Your task to perform on an android device: delete location history Image 0: 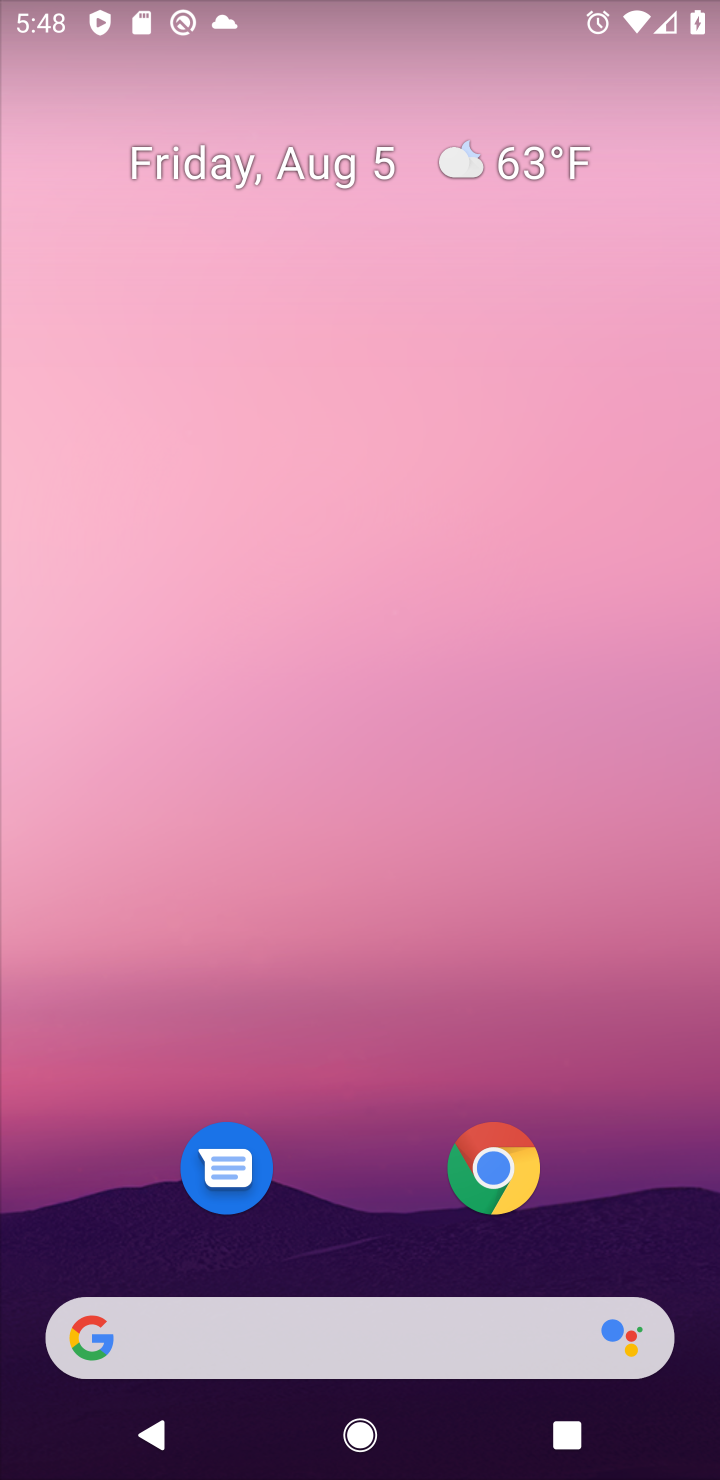
Step 0: press home button
Your task to perform on an android device: delete location history Image 1: 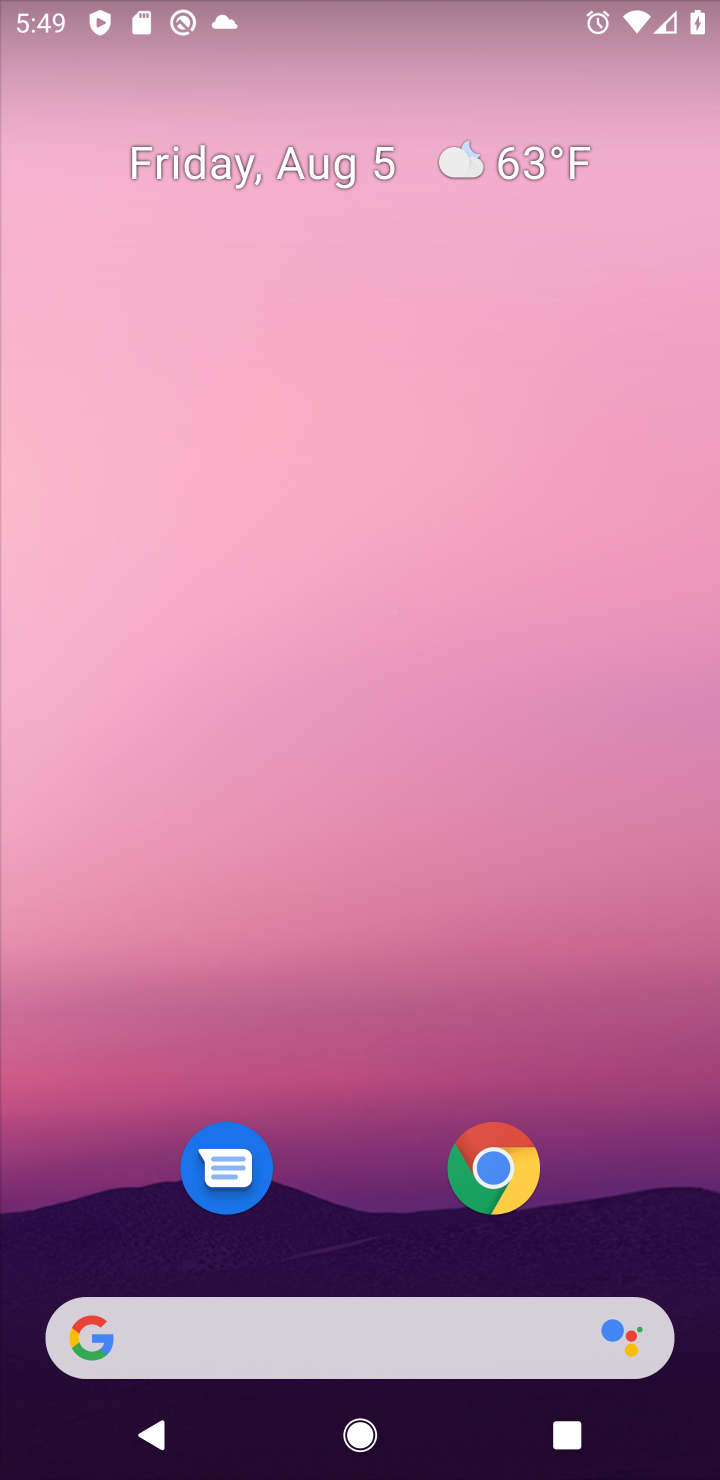
Step 1: drag from (348, 1258) to (403, 87)
Your task to perform on an android device: delete location history Image 2: 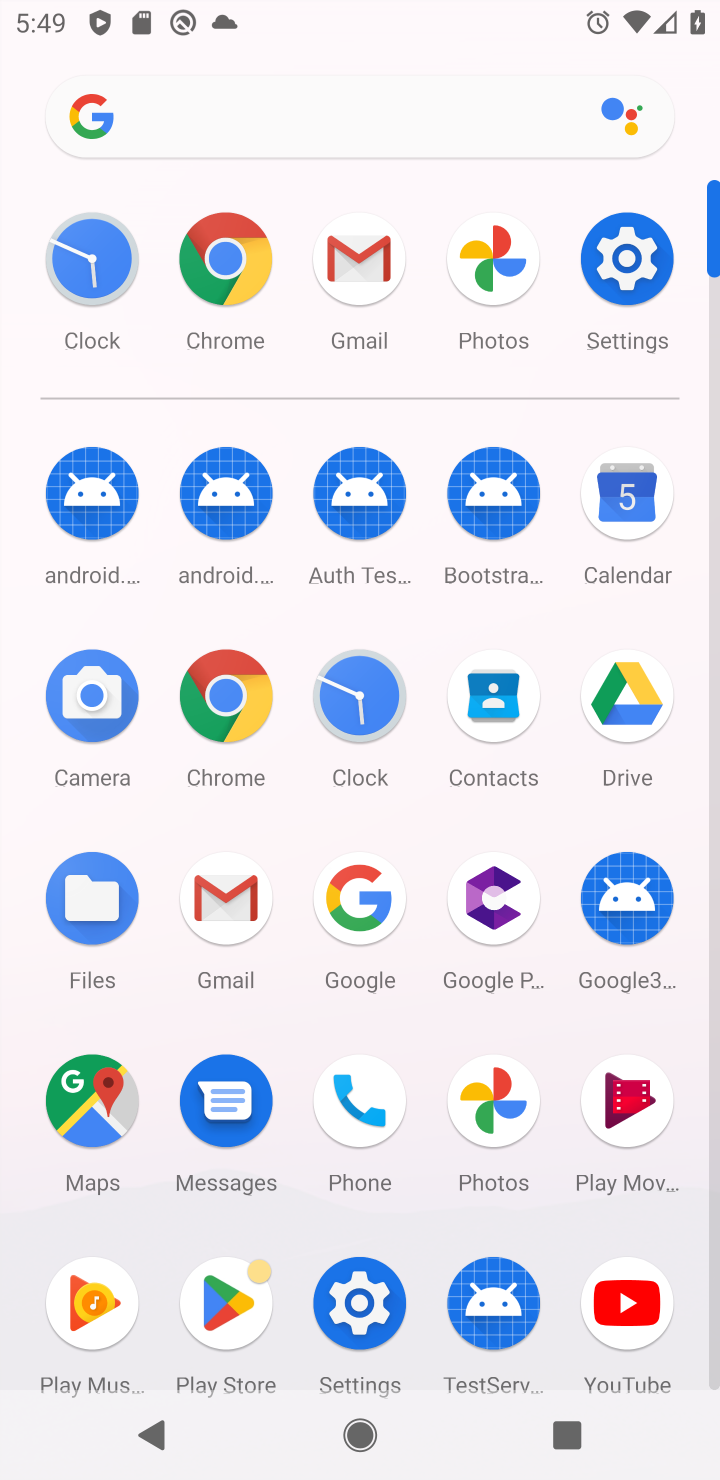
Step 2: click (601, 274)
Your task to perform on an android device: delete location history Image 3: 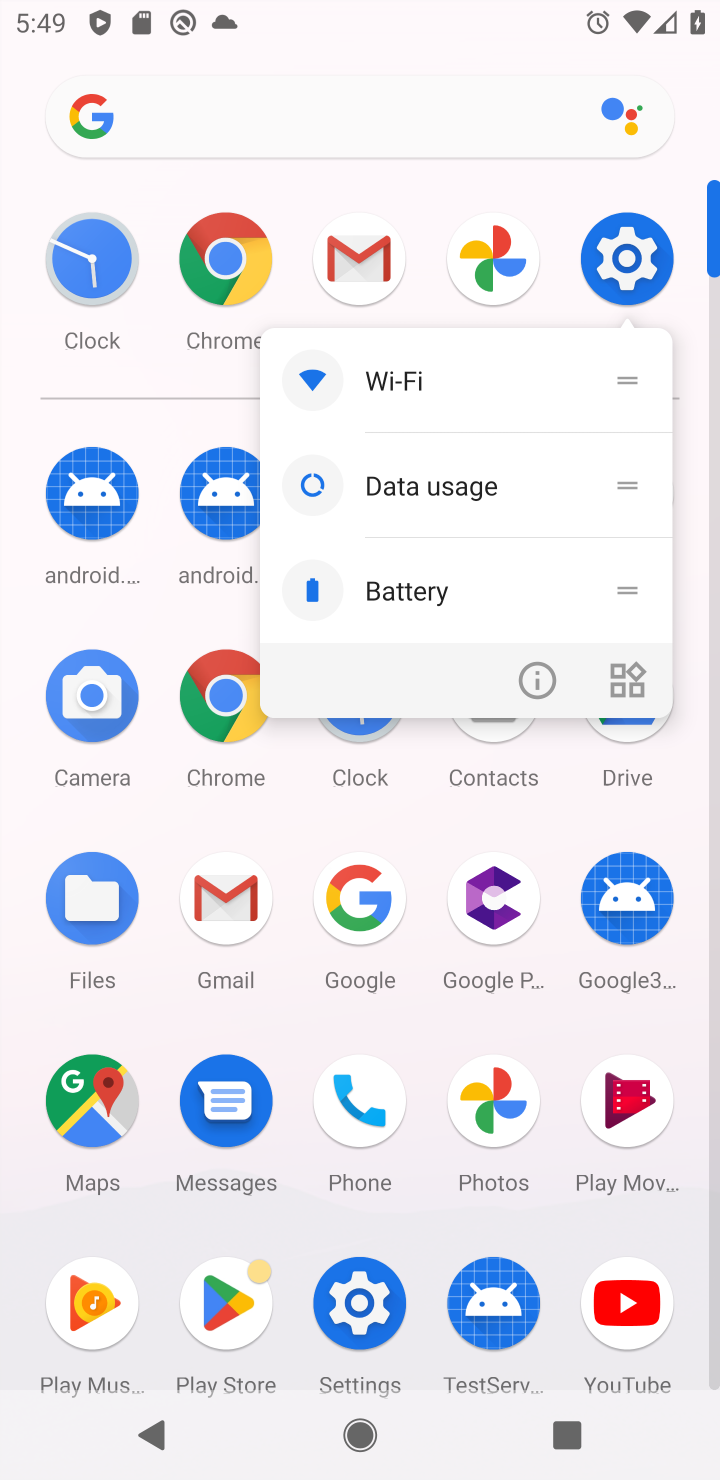
Step 3: click (89, 1111)
Your task to perform on an android device: delete location history Image 4: 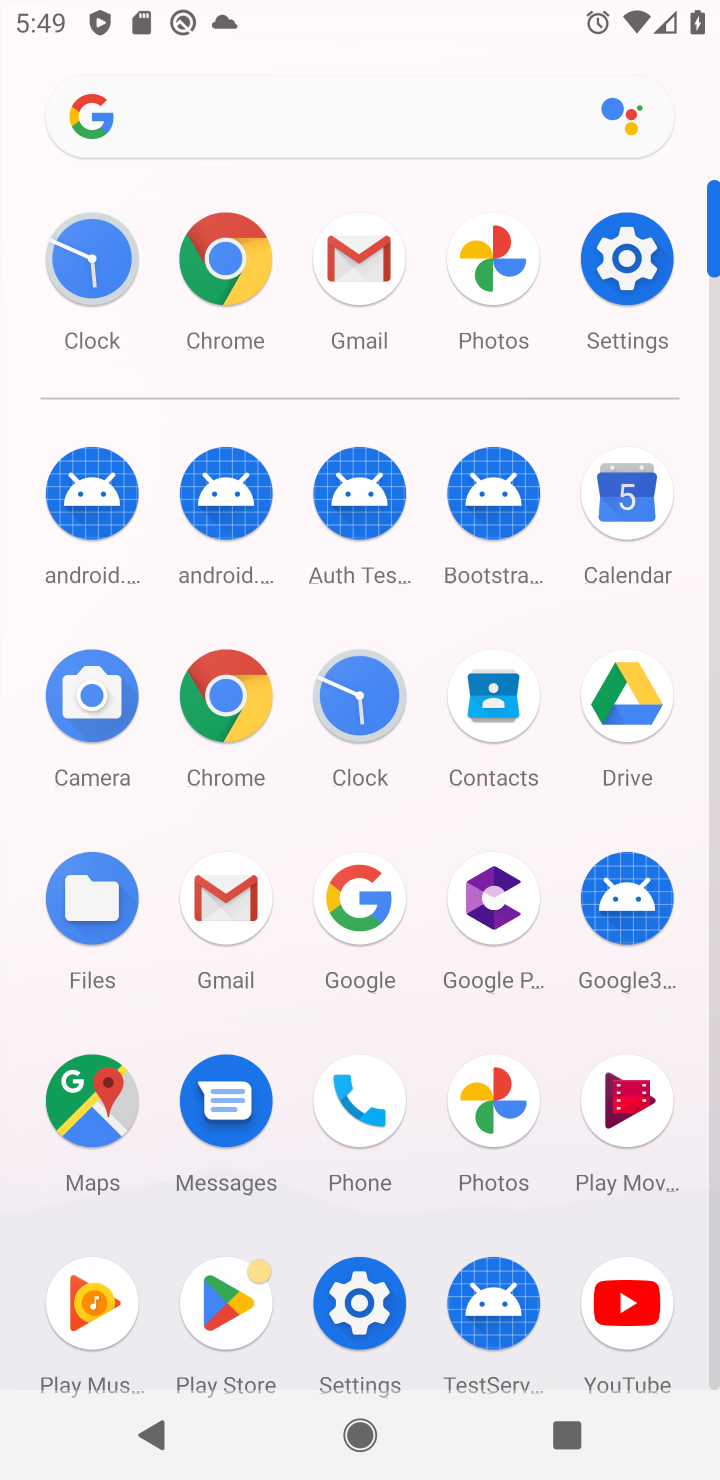
Step 4: click (25, 1162)
Your task to perform on an android device: delete location history Image 5: 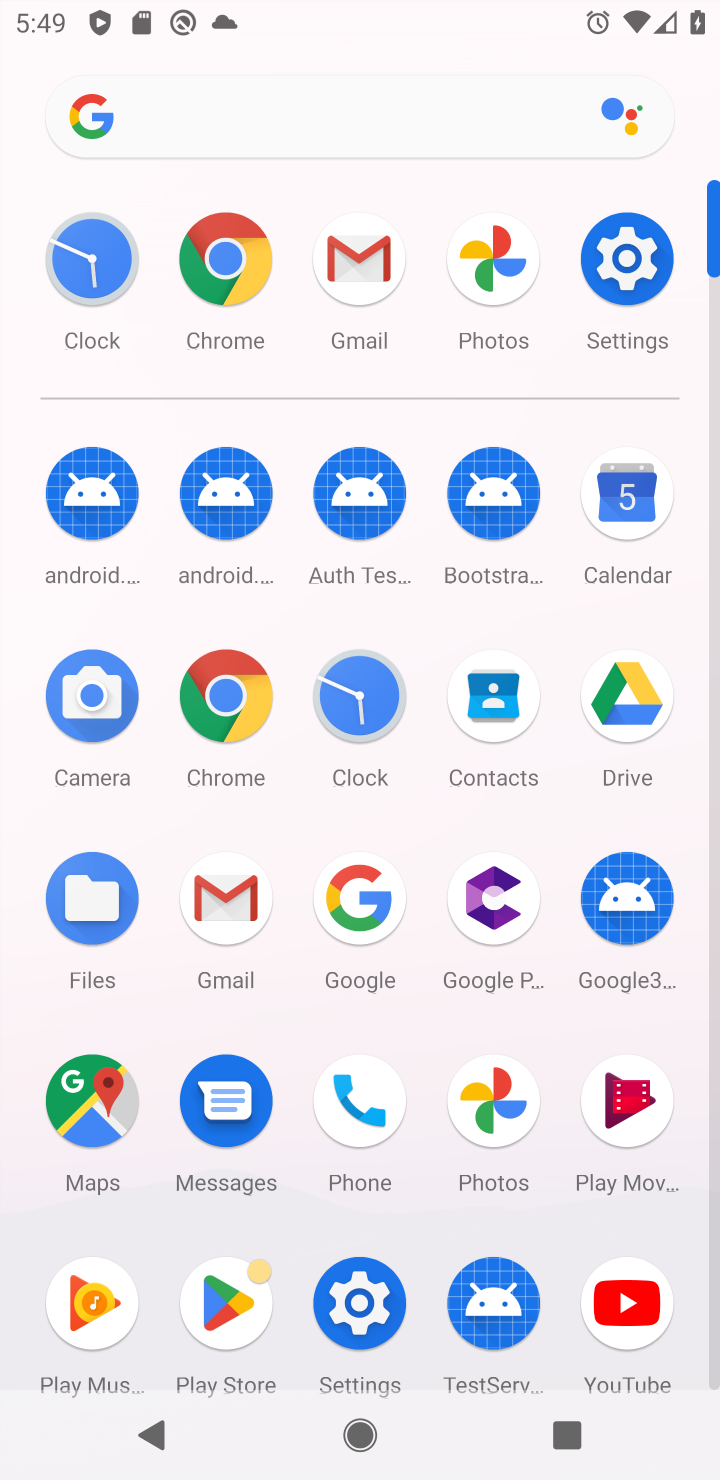
Step 5: click (98, 1129)
Your task to perform on an android device: delete location history Image 6: 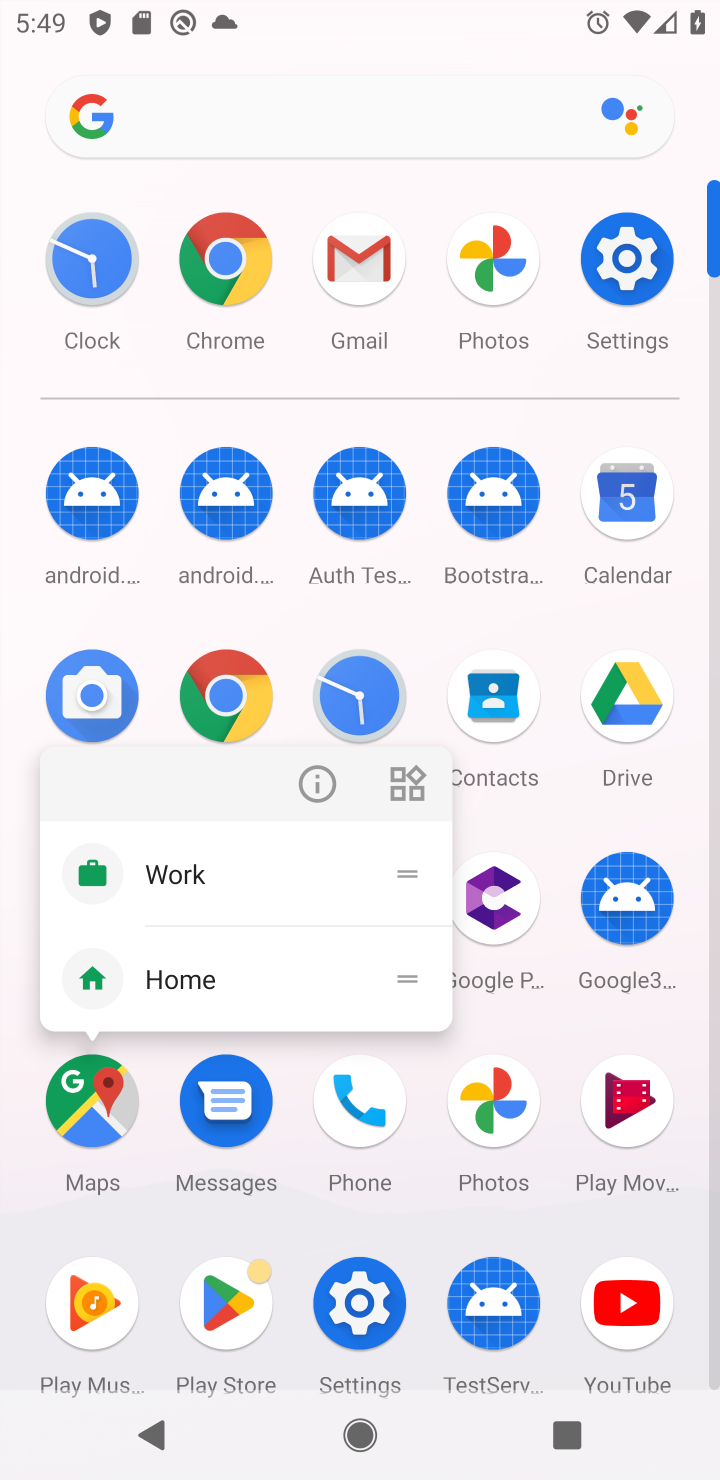
Step 6: click (62, 1127)
Your task to perform on an android device: delete location history Image 7: 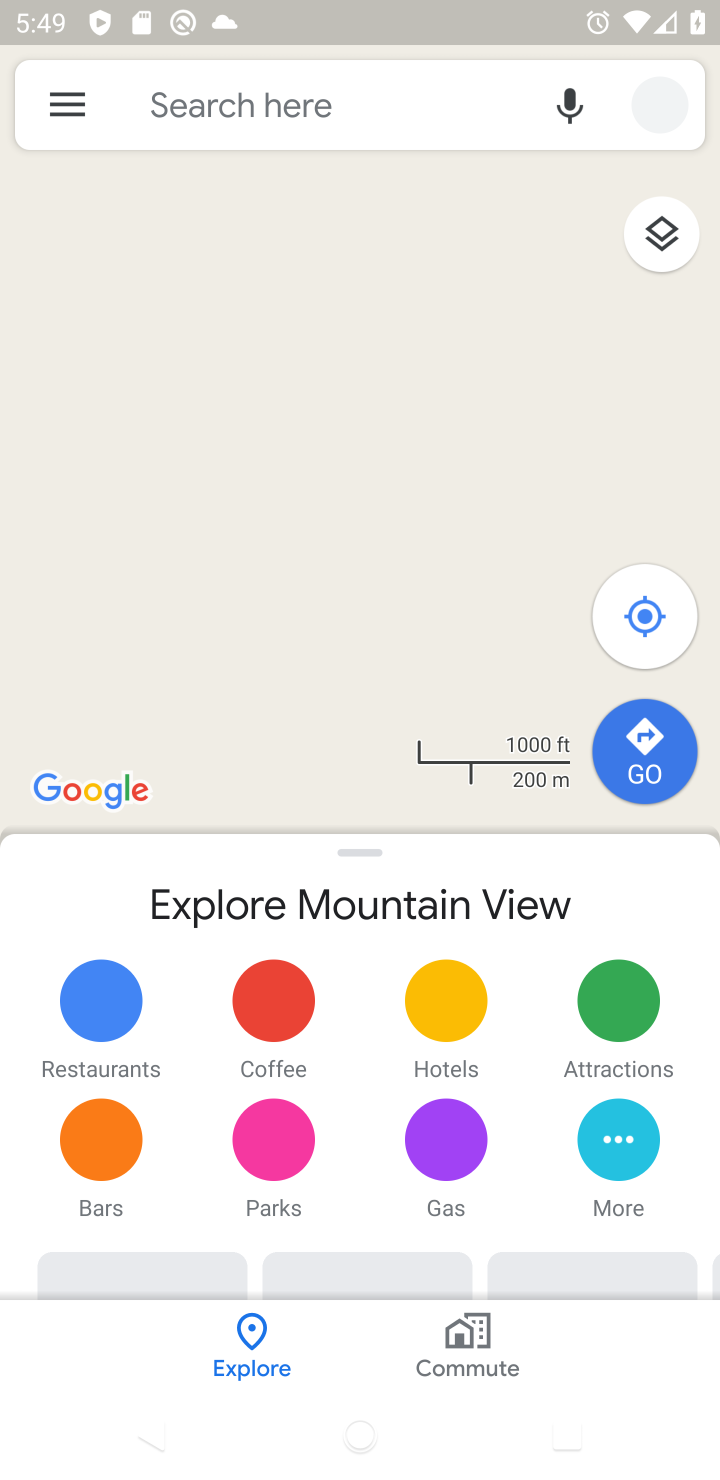
Step 7: click (52, 97)
Your task to perform on an android device: delete location history Image 8: 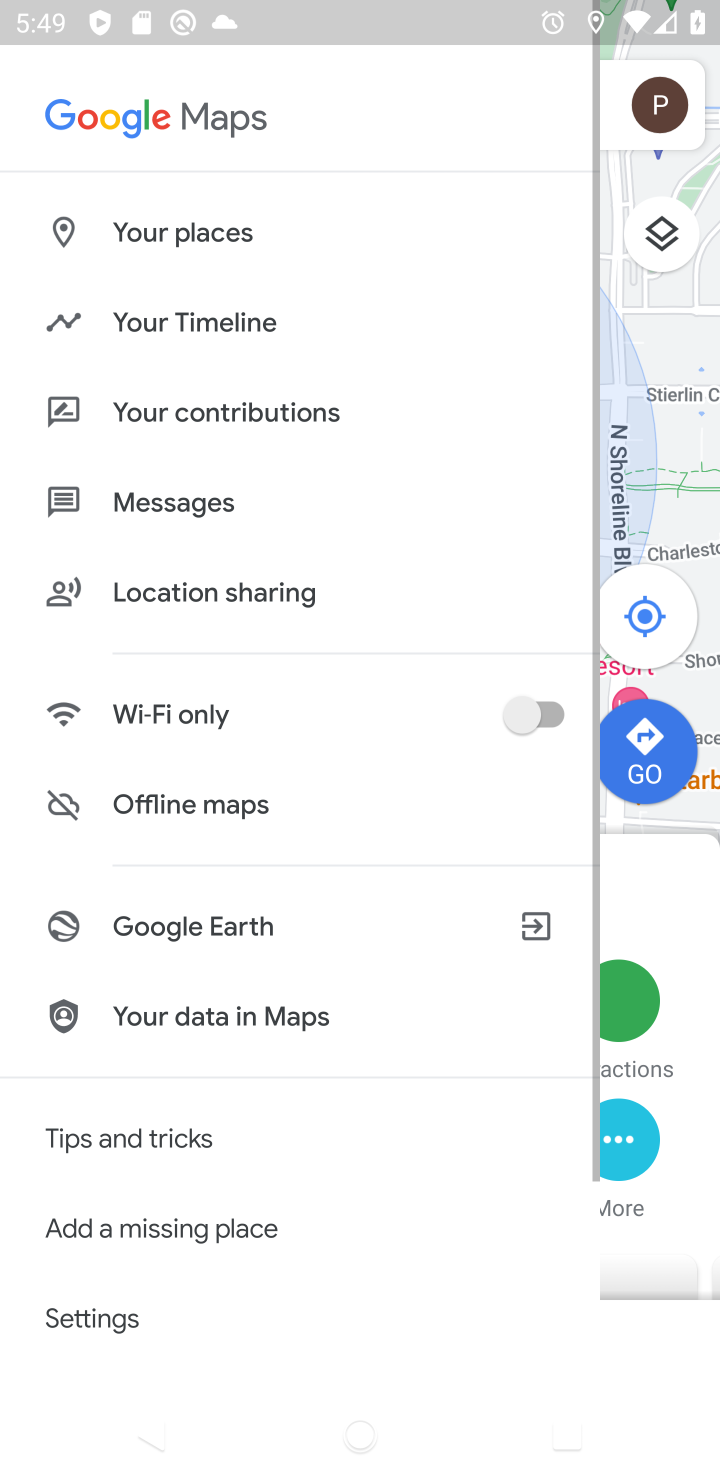
Step 8: click (178, 328)
Your task to perform on an android device: delete location history Image 9: 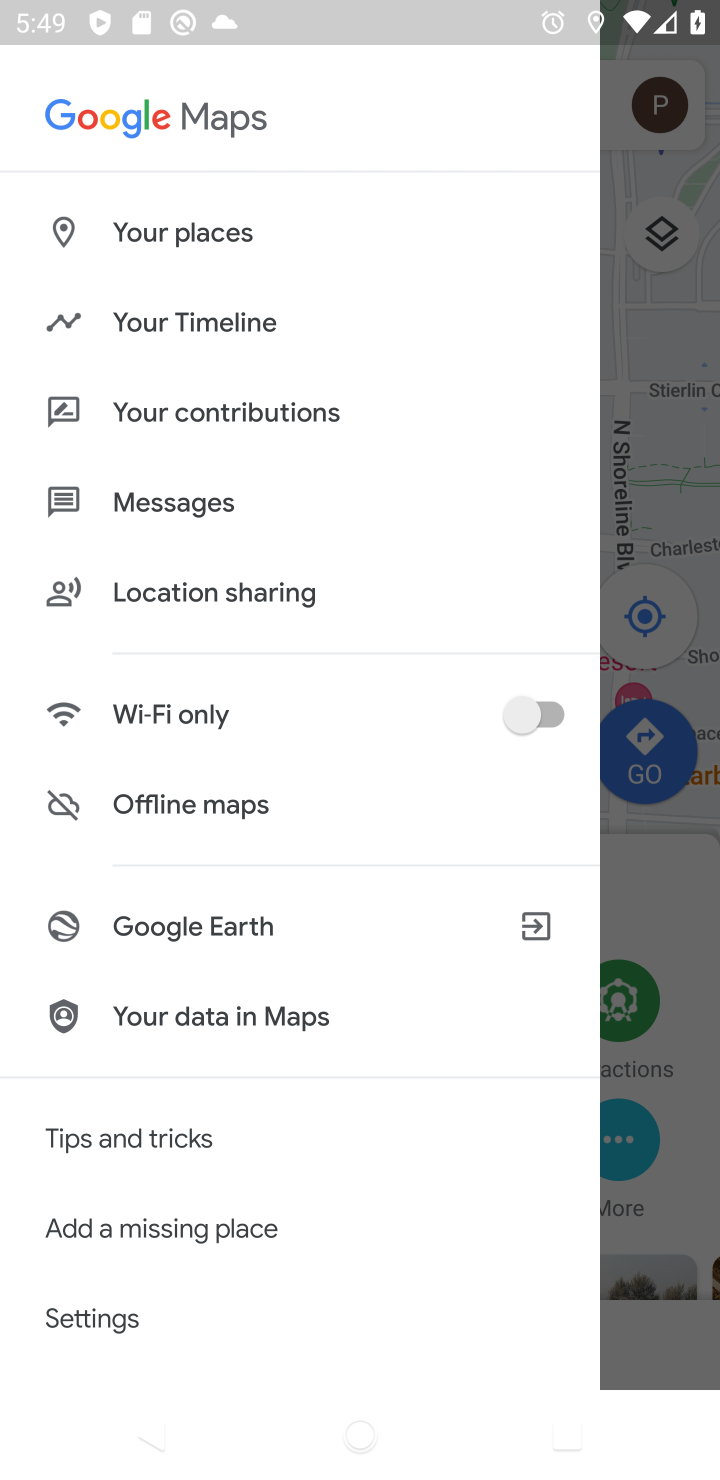
Step 9: click (182, 326)
Your task to perform on an android device: delete location history Image 10: 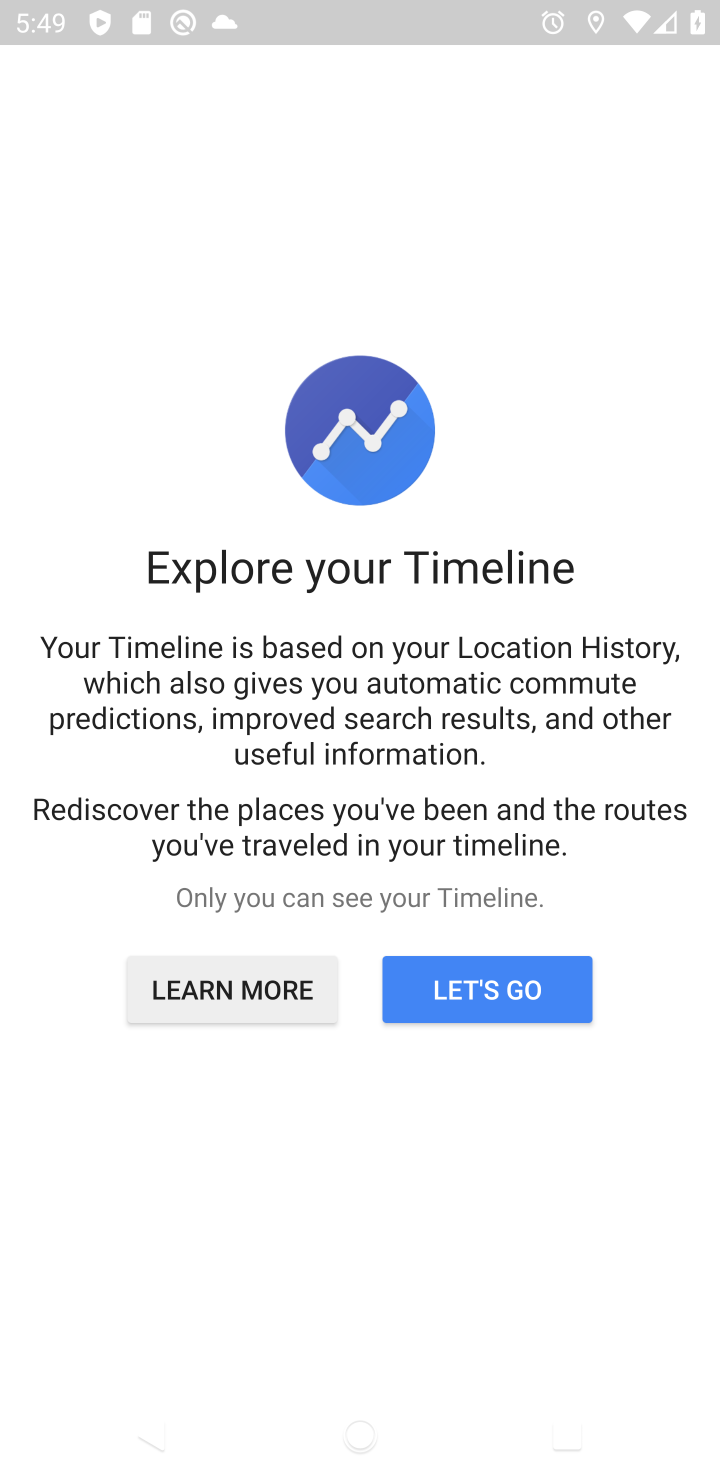
Step 10: click (512, 986)
Your task to perform on an android device: delete location history Image 11: 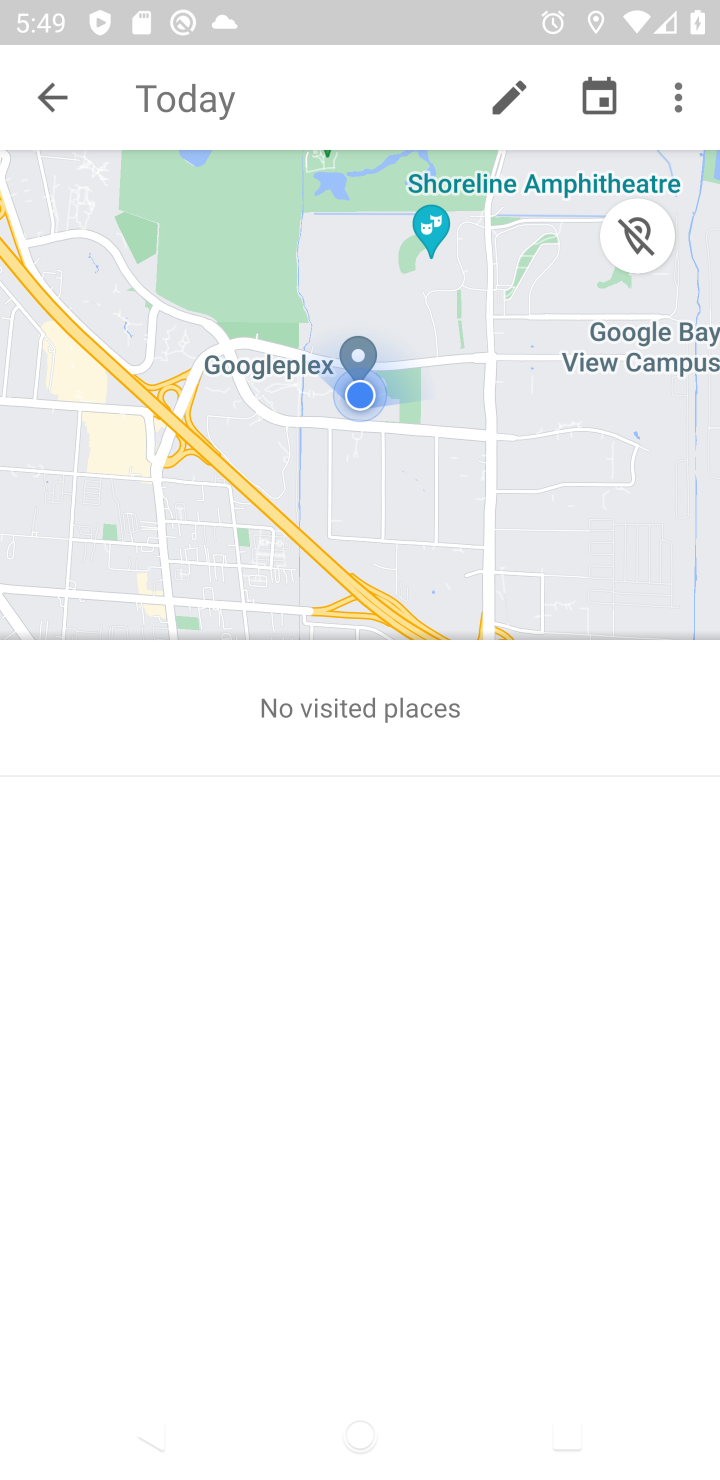
Step 11: click (679, 83)
Your task to perform on an android device: delete location history Image 12: 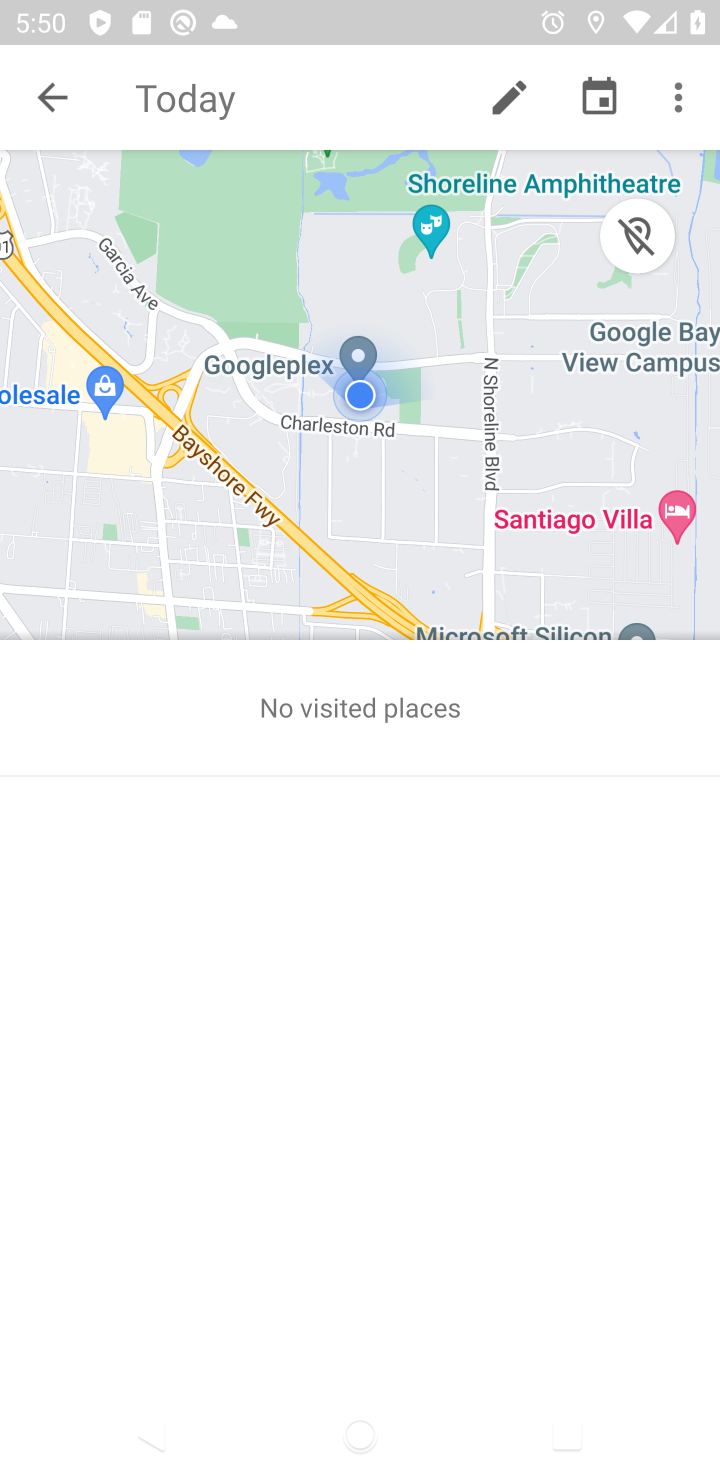
Step 12: click (674, 96)
Your task to perform on an android device: delete location history Image 13: 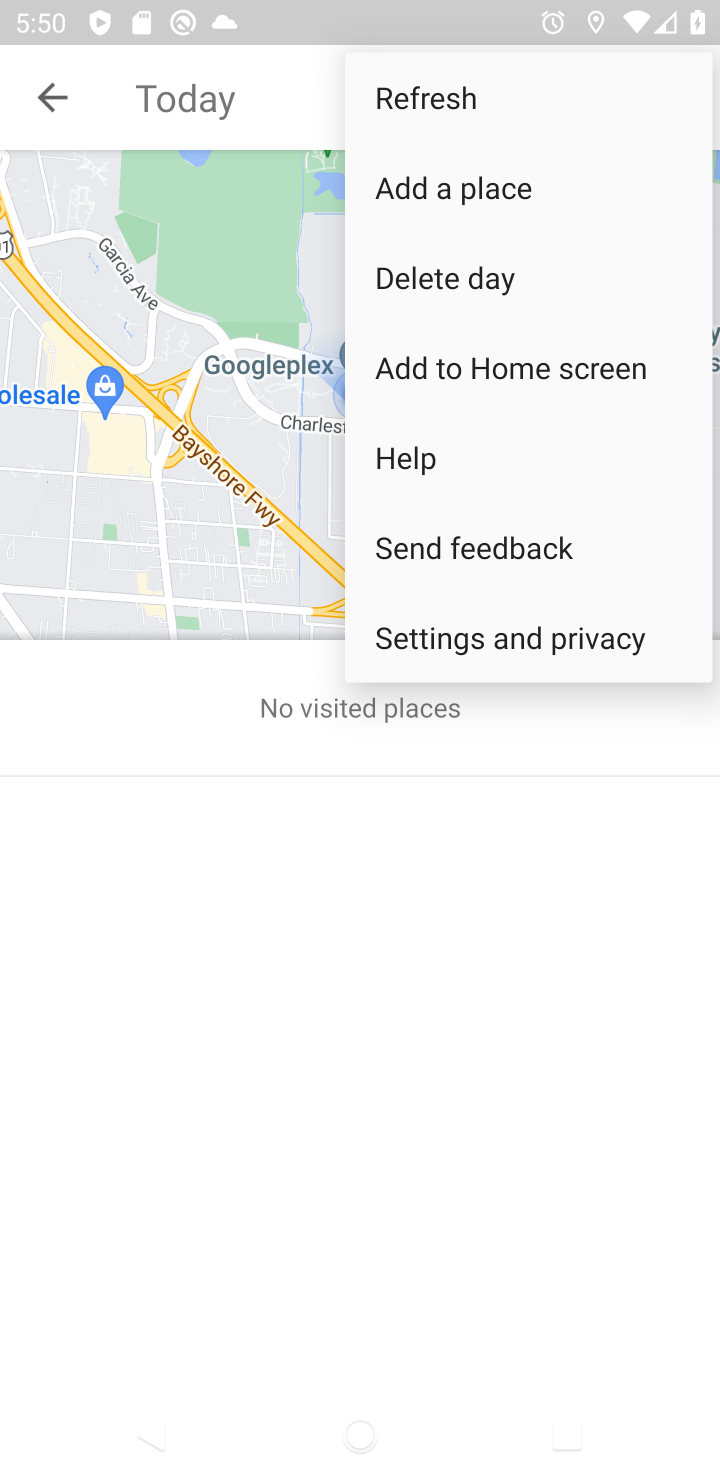
Step 13: click (467, 639)
Your task to perform on an android device: delete location history Image 14: 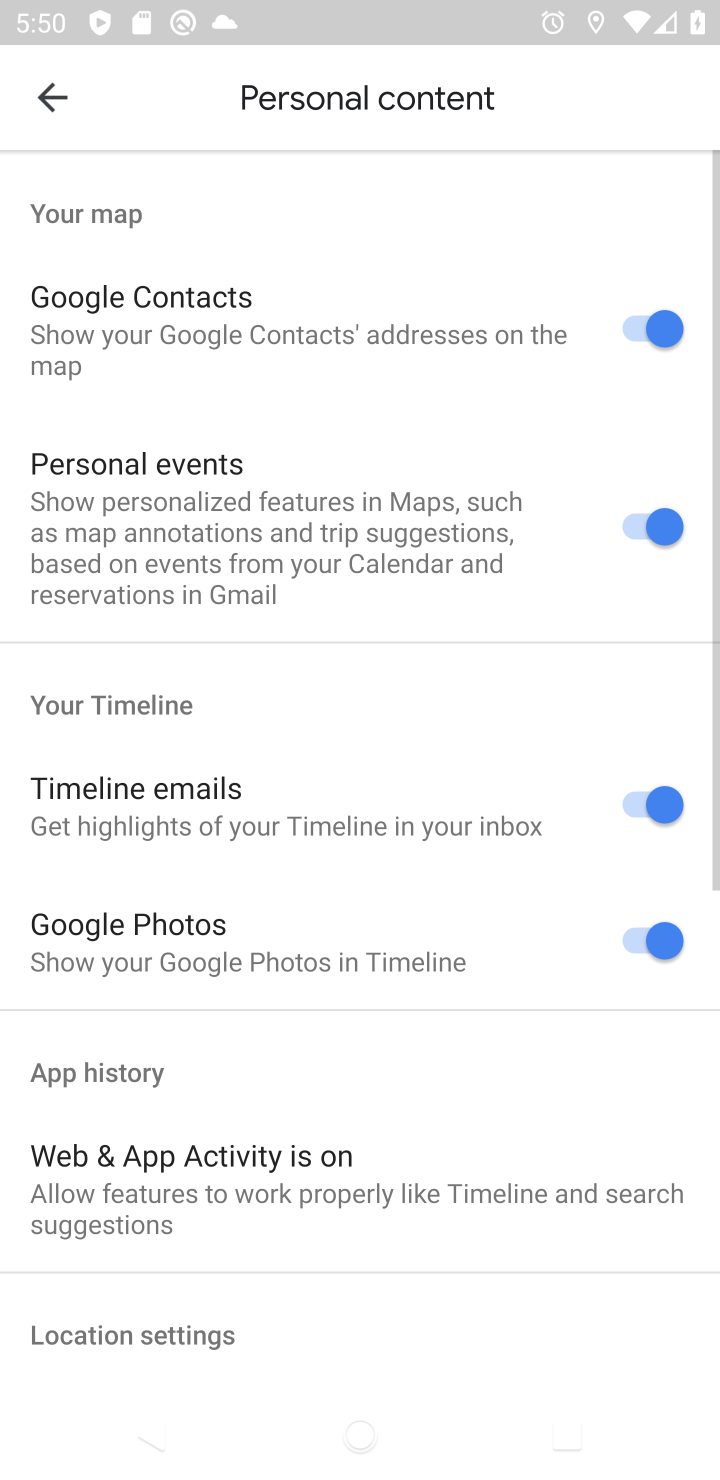
Step 14: drag from (483, 1256) to (449, 120)
Your task to perform on an android device: delete location history Image 15: 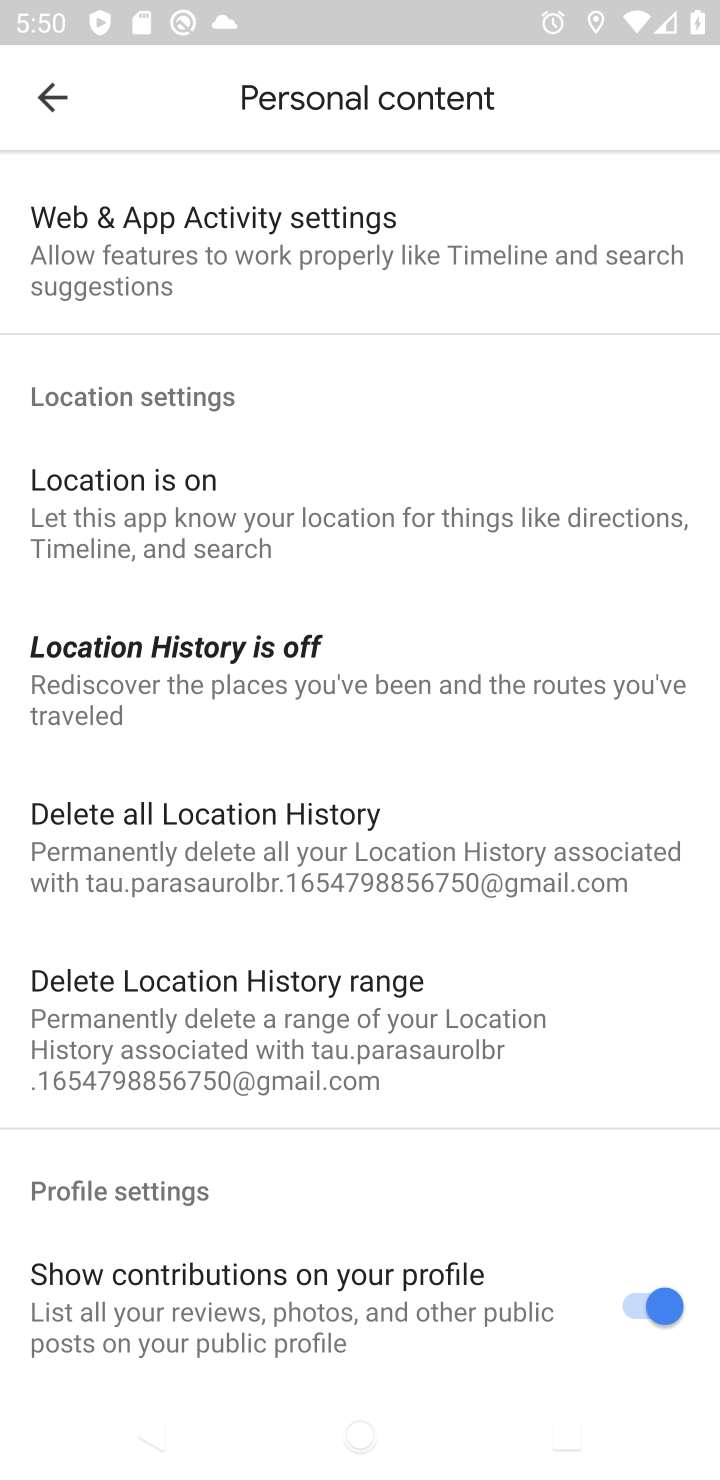
Step 15: drag from (446, 1264) to (573, 400)
Your task to perform on an android device: delete location history Image 16: 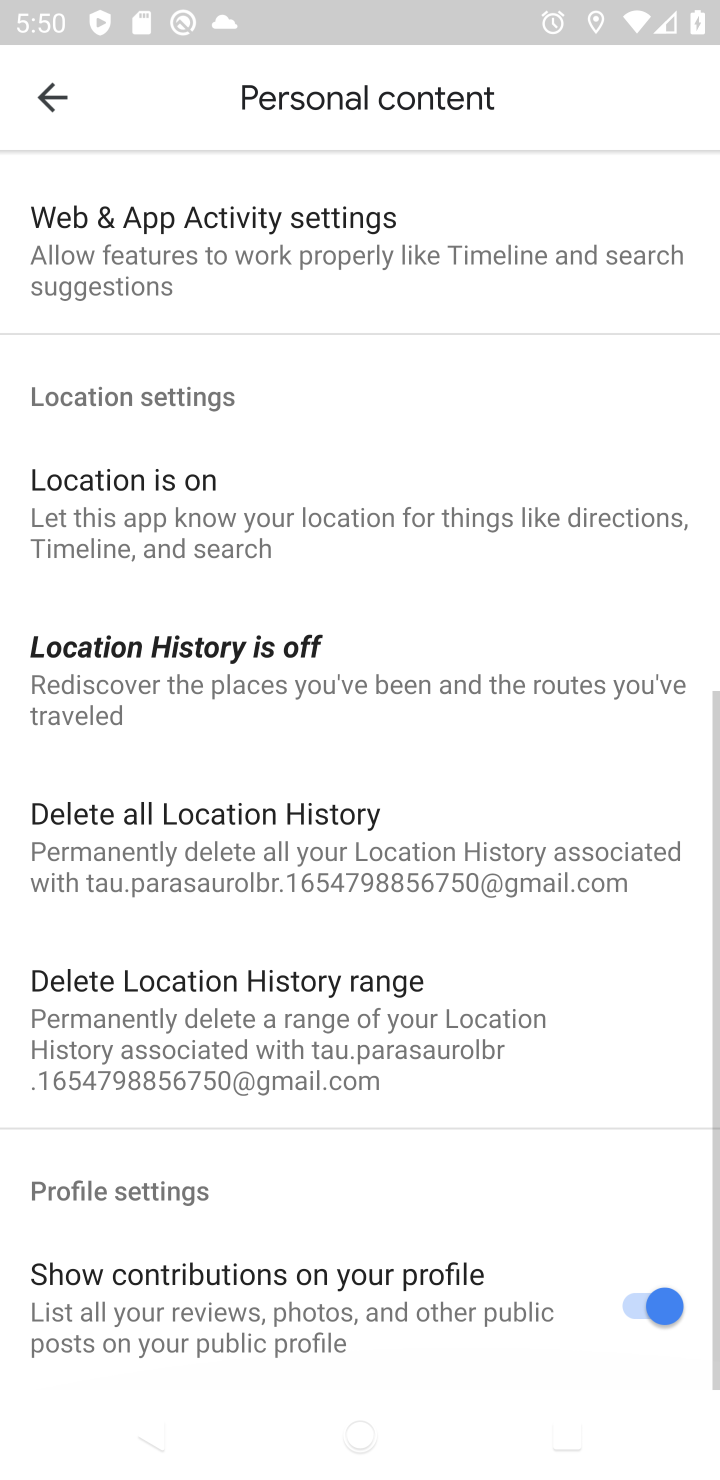
Step 16: click (178, 833)
Your task to perform on an android device: delete location history Image 17: 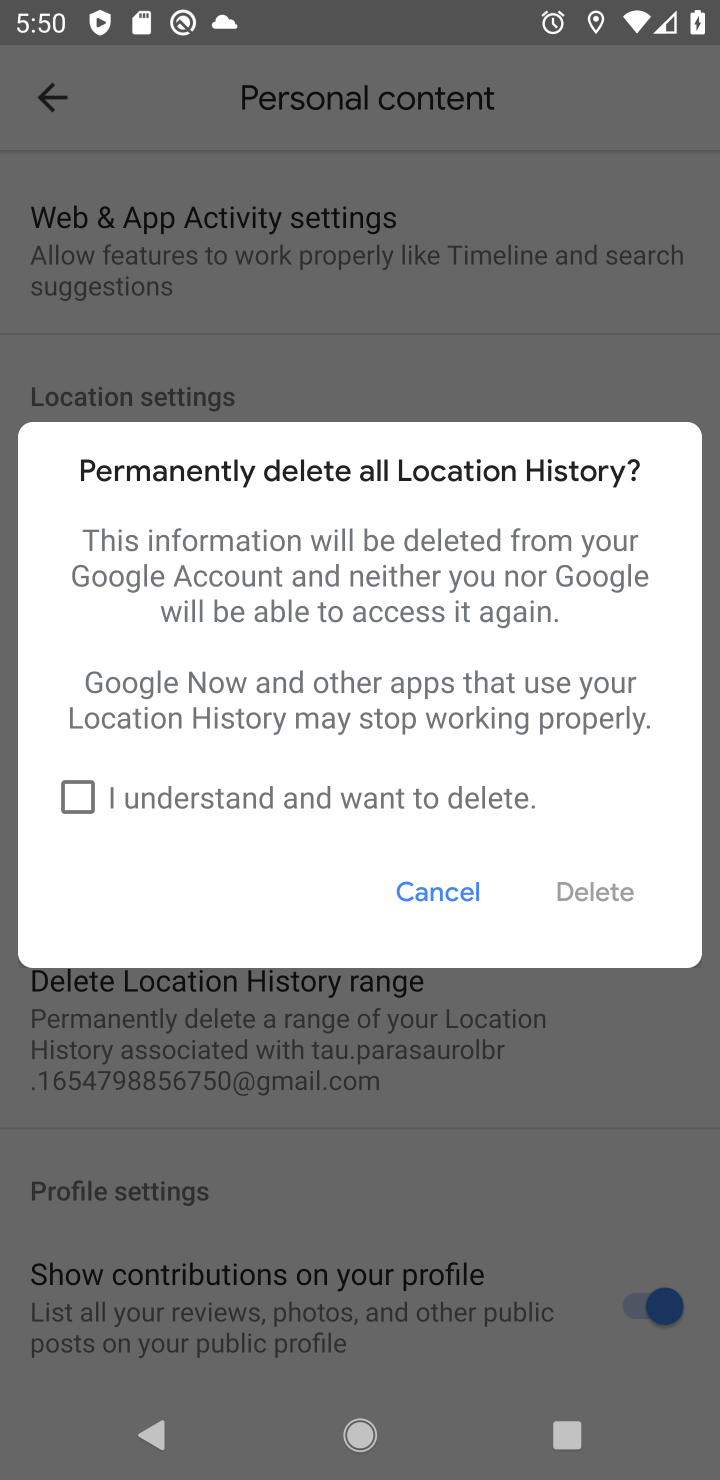
Step 17: click (74, 784)
Your task to perform on an android device: delete location history Image 18: 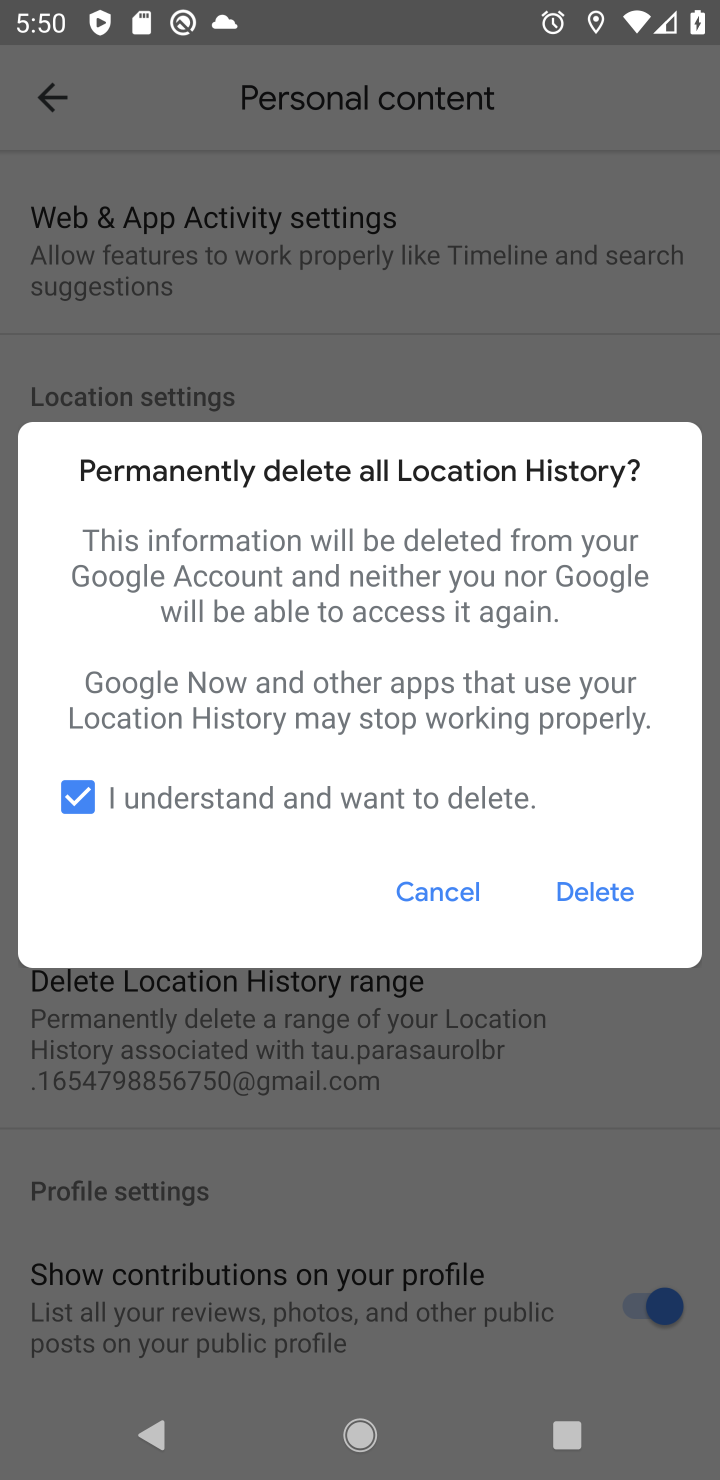
Step 18: click (603, 887)
Your task to perform on an android device: delete location history Image 19: 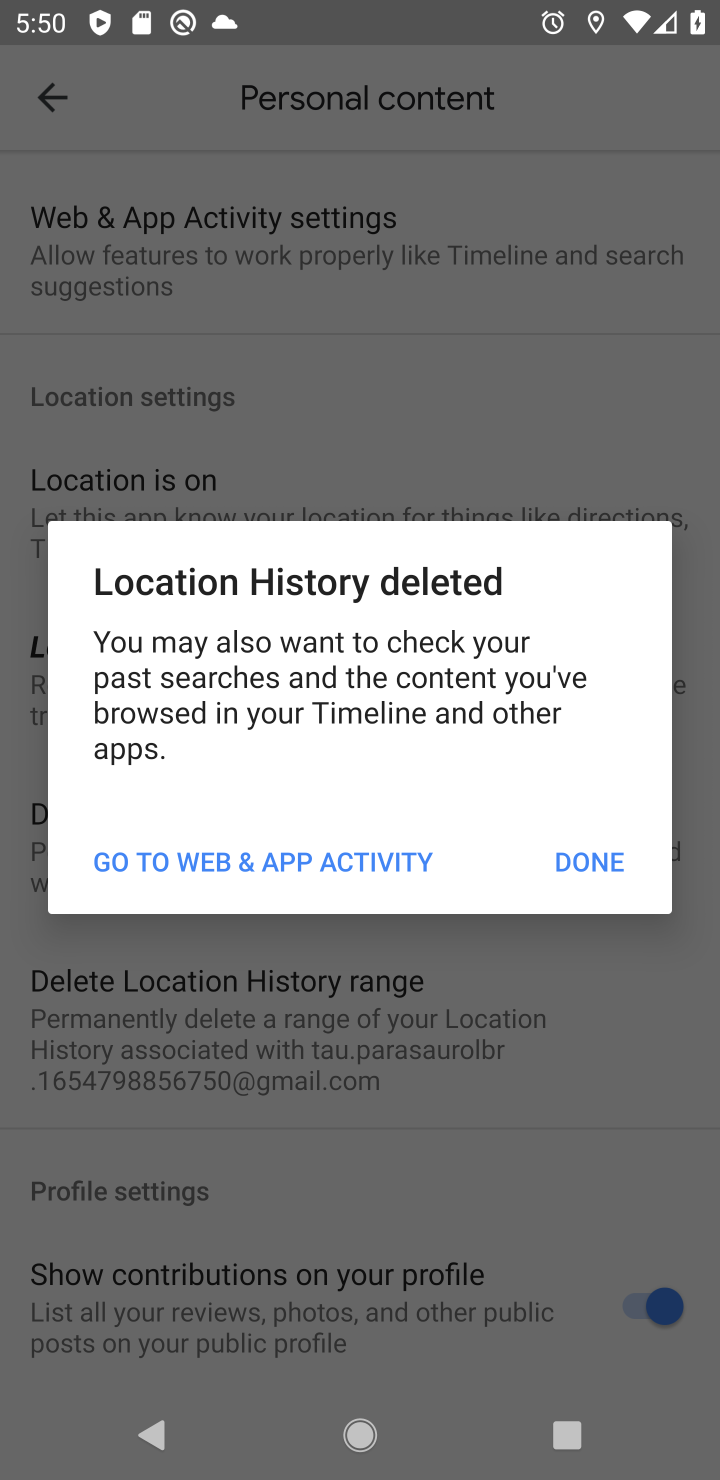
Step 19: click (565, 851)
Your task to perform on an android device: delete location history Image 20: 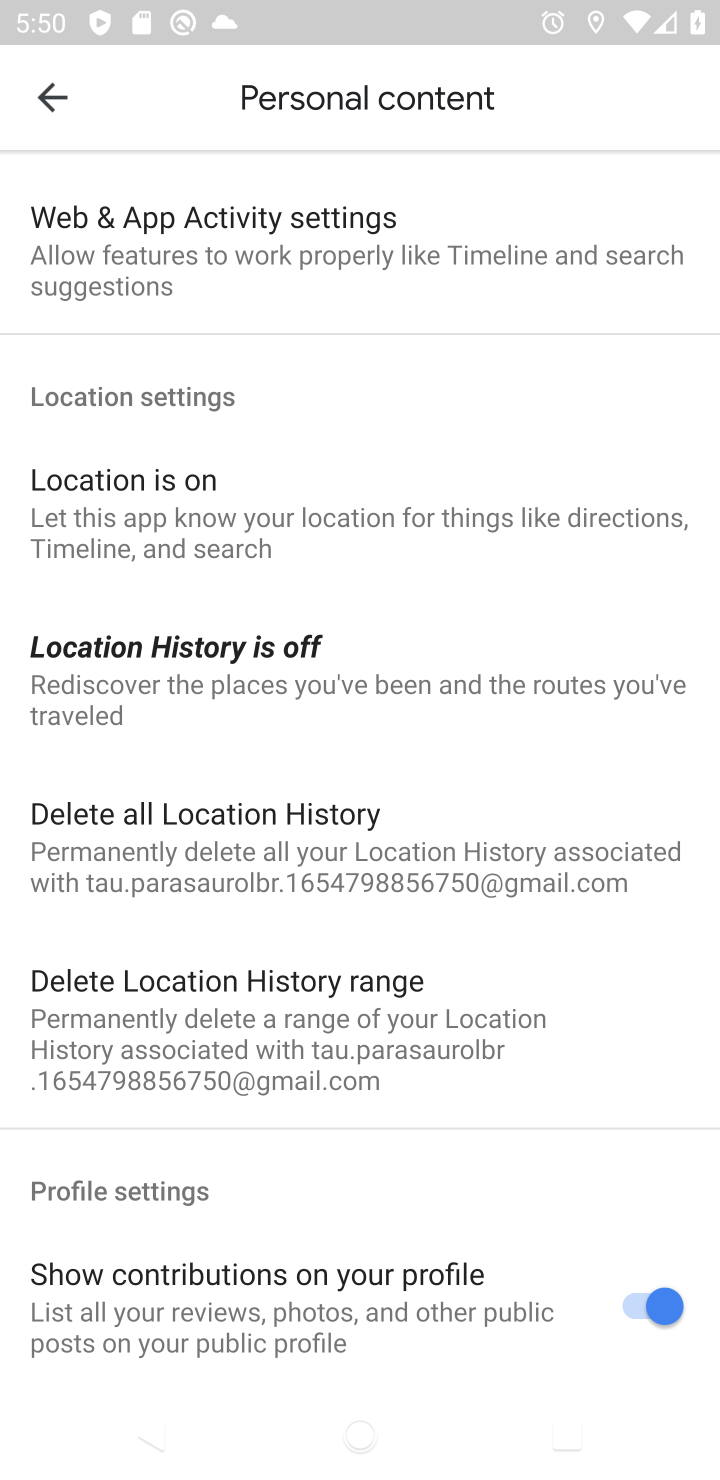
Step 20: task complete